Your task to perform on an android device: change timer sound Image 0: 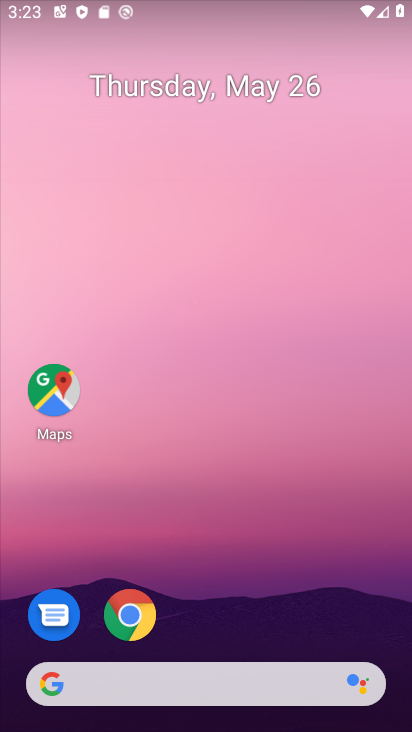
Step 0: drag from (288, 648) to (325, 111)
Your task to perform on an android device: change timer sound Image 1: 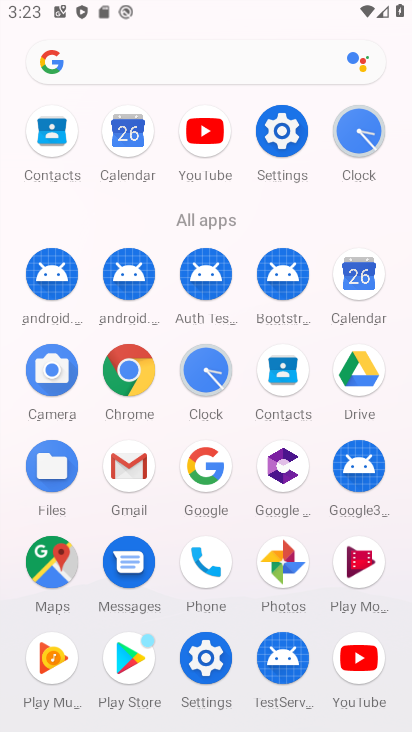
Step 1: click (209, 378)
Your task to perform on an android device: change timer sound Image 2: 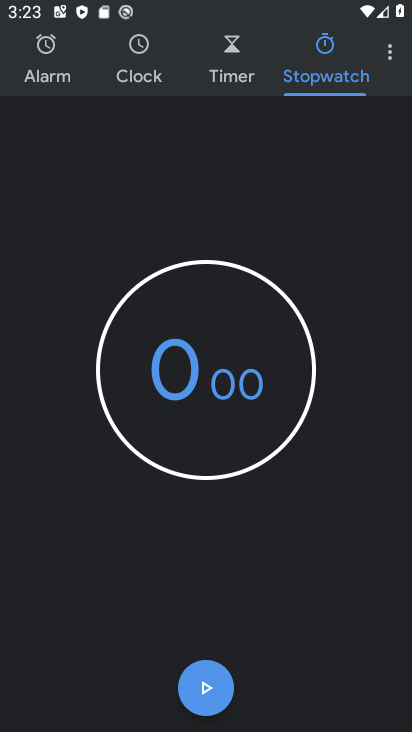
Step 2: click (396, 49)
Your task to perform on an android device: change timer sound Image 3: 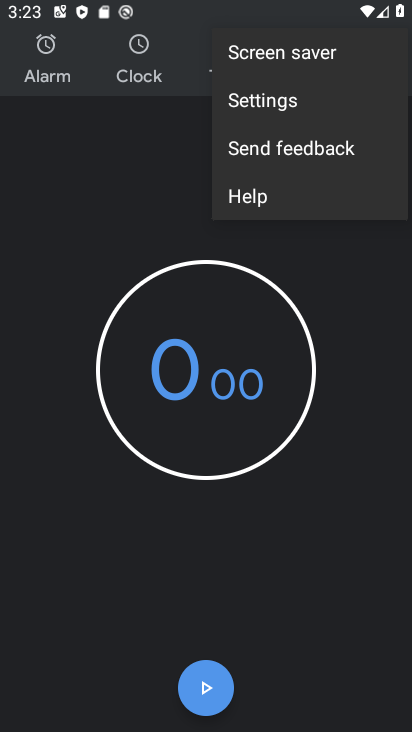
Step 3: click (306, 94)
Your task to perform on an android device: change timer sound Image 4: 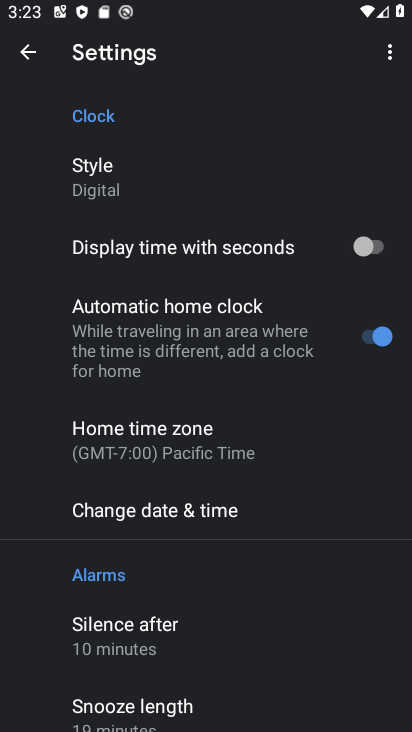
Step 4: drag from (227, 616) to (203, 162)
Your task to perform on an android device: change timer sound Image 5: 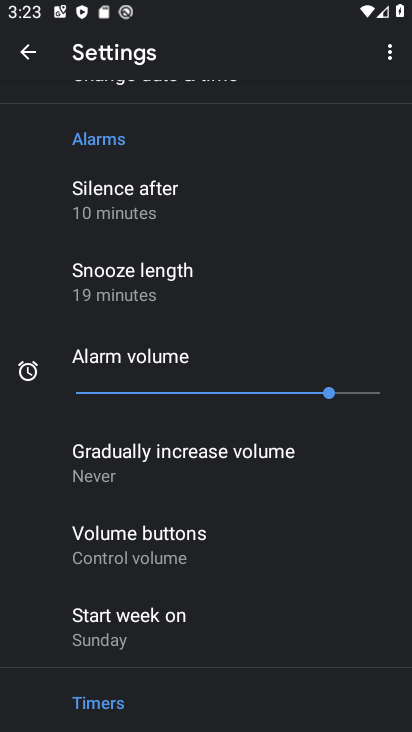
Step 5: drag from (225, 667) to (240, 352)
Your task to perform on an android device: change timer sound Image 6: 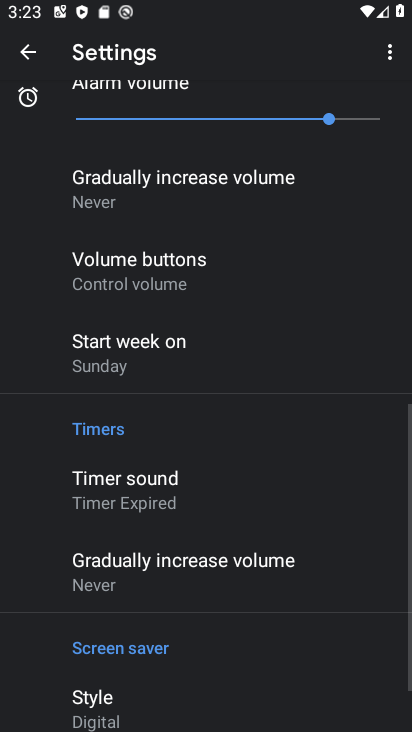
Step 6: click (221, 492)
Your task to perform on an android device: change timer sound Image 7: 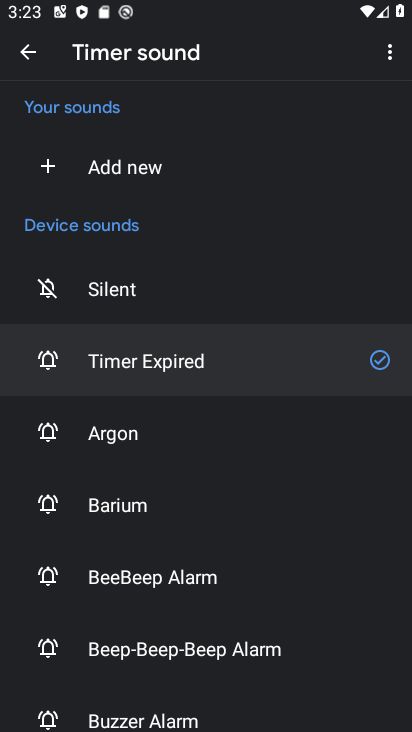
Step 7: click (208, 708)
Your task to perform on an android device: change timer sound Image 8: 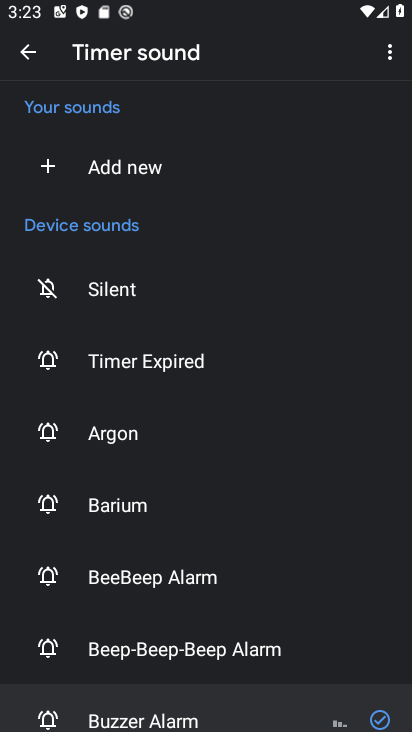
Step 8: task complete